Your task to perform on an android device: Search for a new lawnmower on Lowes.com Image 0: 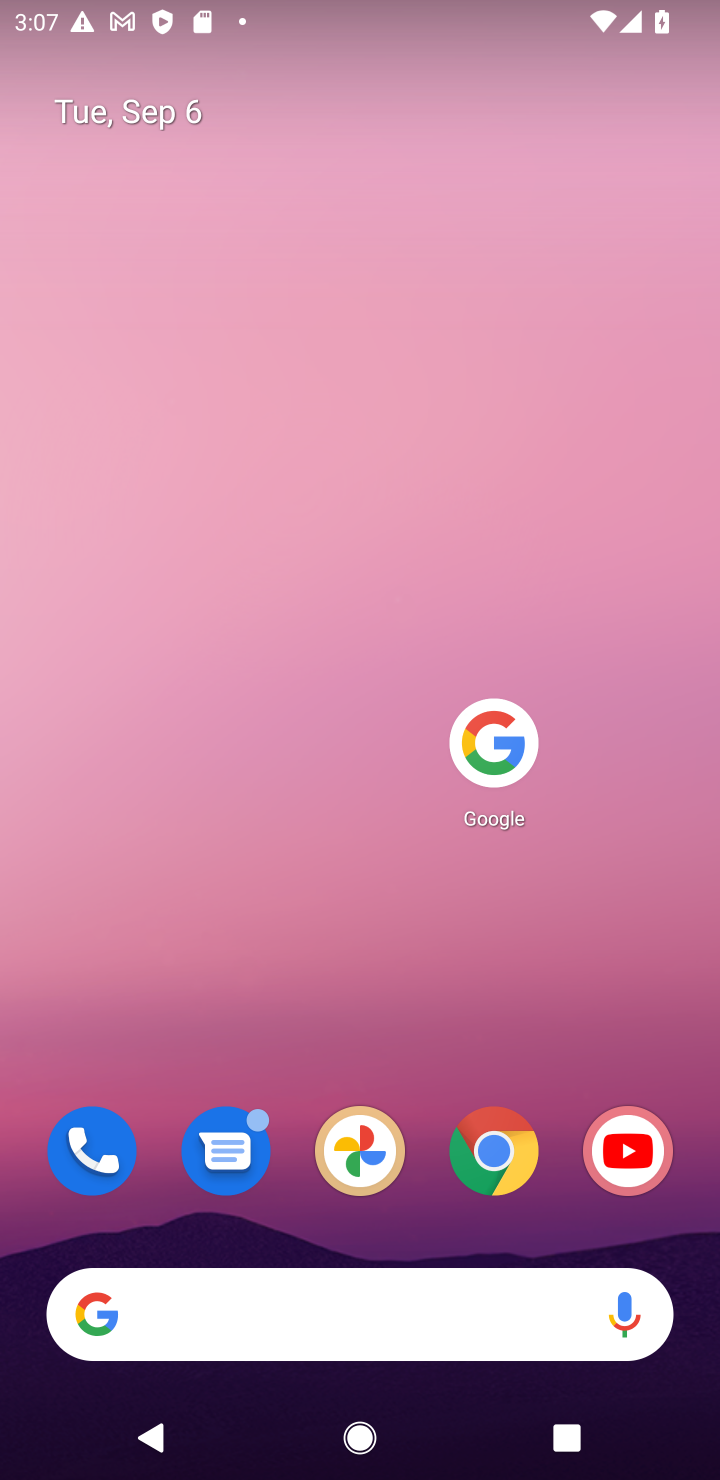
Step 0: click (466, 727)
Your task to perform on an android device: Search for a new lawnmower on Lowes.com Image 1: 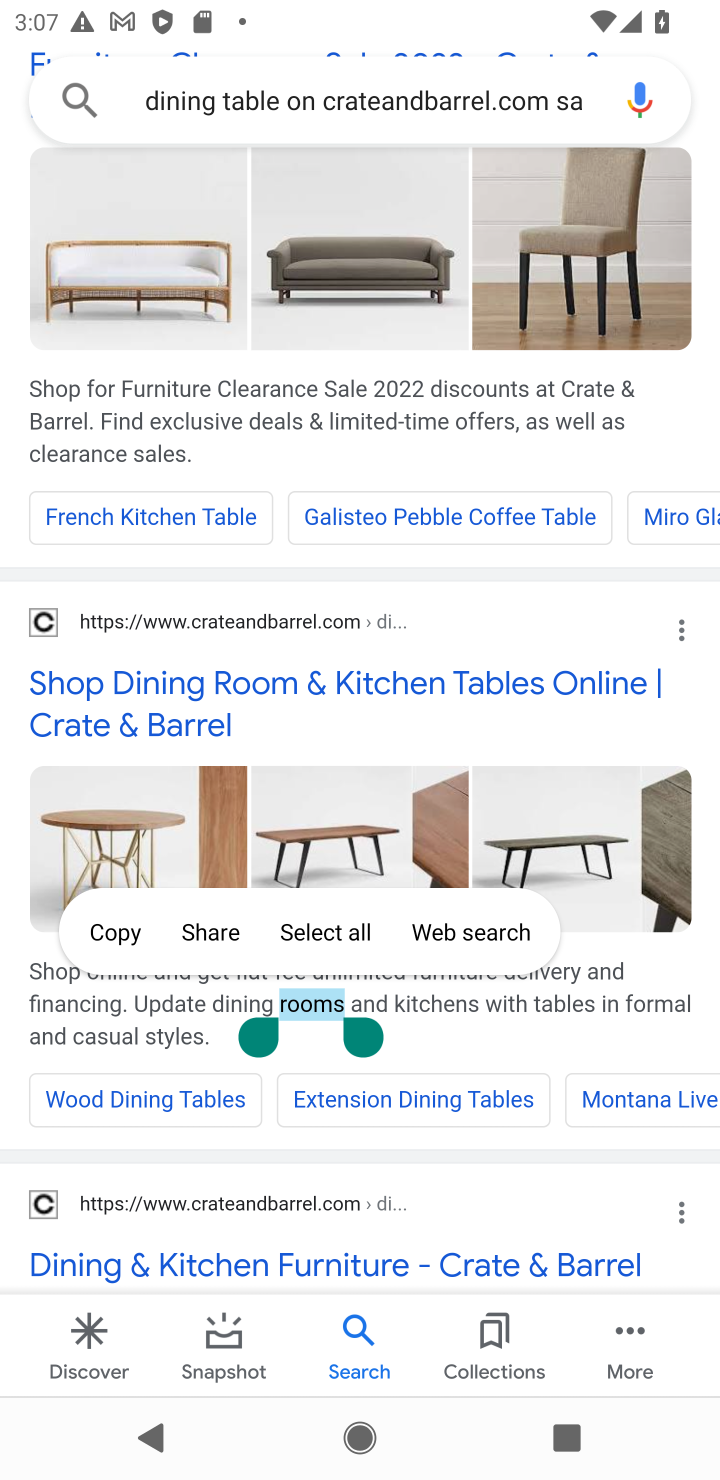
Step 1: drag from (236, 973) to (257, 1205)
Your task to perform on an android device: Search for a new lawnmower on Lowes.com Image 2: 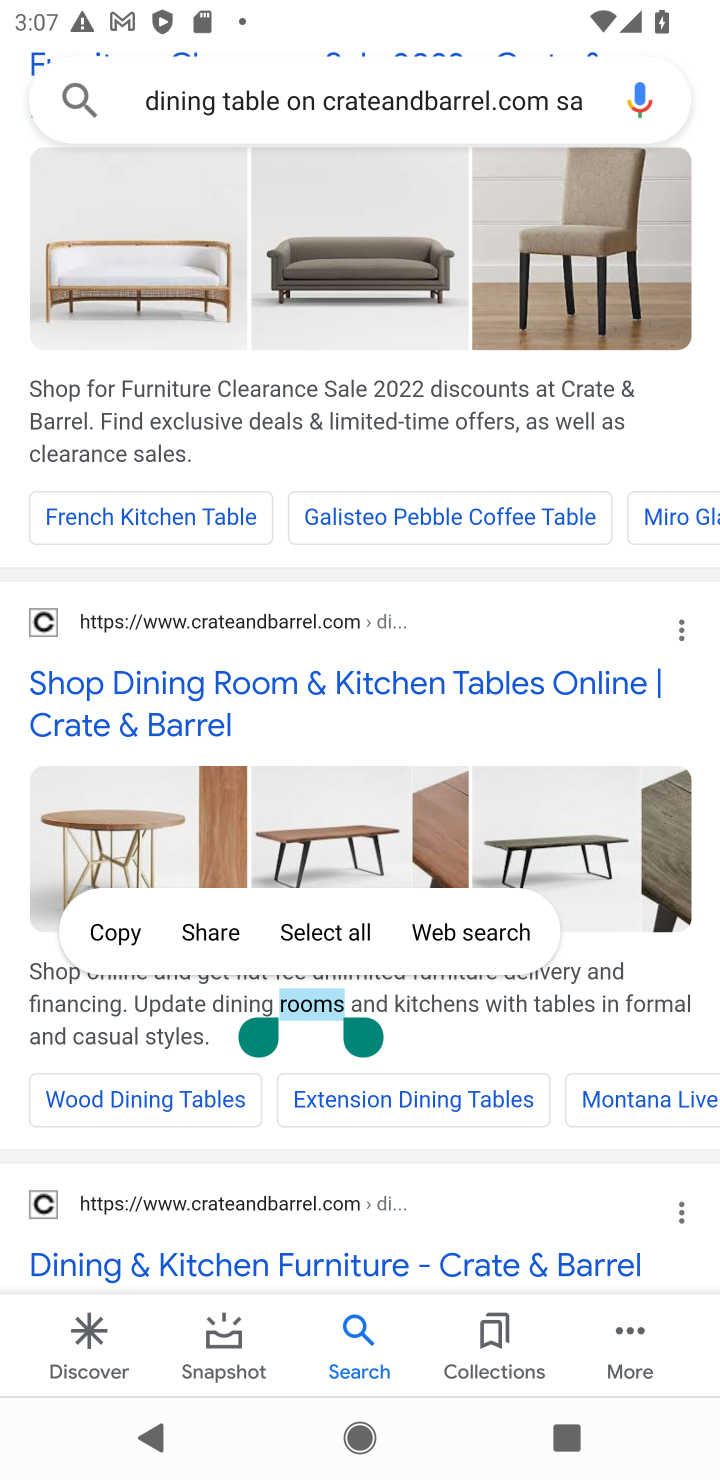
Step 2: click (373, 97)
Your task to perform on an android device: Search for a new lawnmower on Lowes.com Image 3: 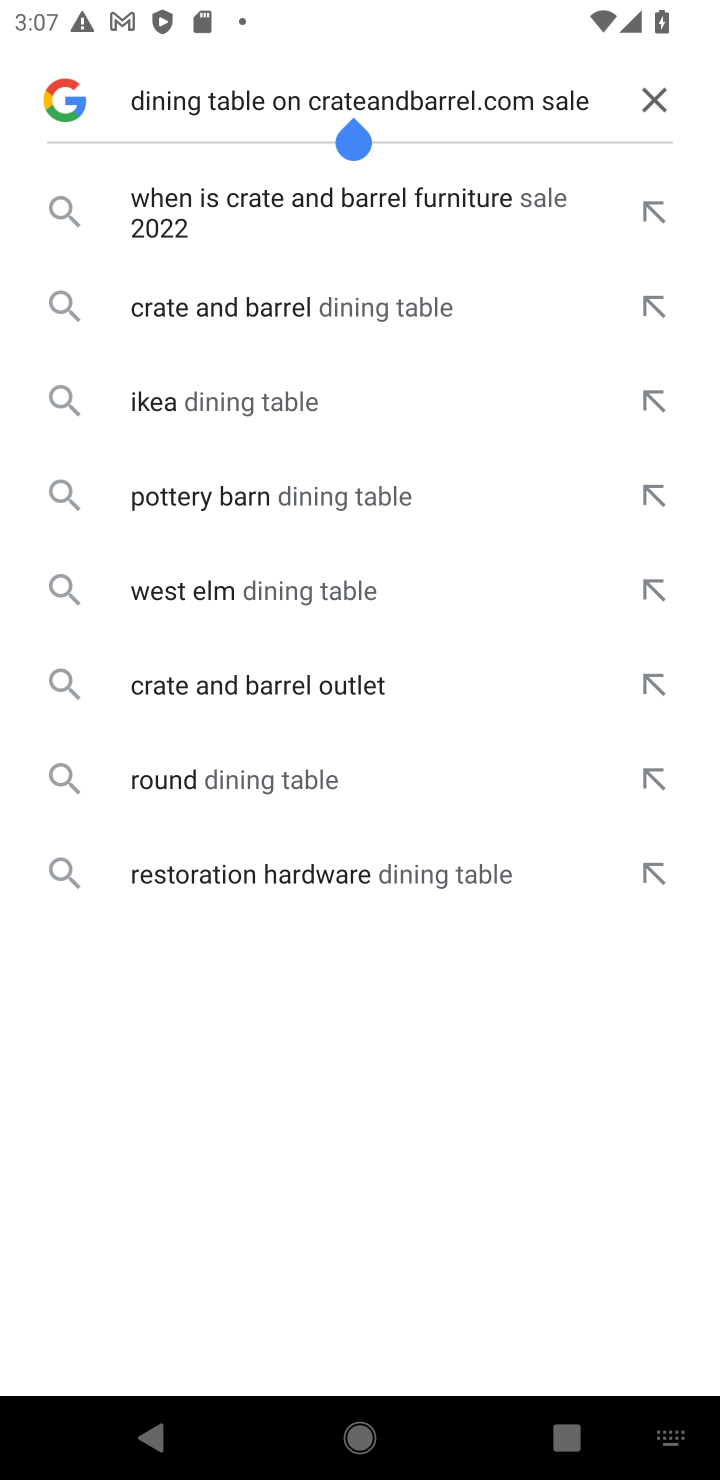
Step 3: click (637, 73)
Your task to perform on an android device: Search for a new lawnmower on Lowes.com Image 4: 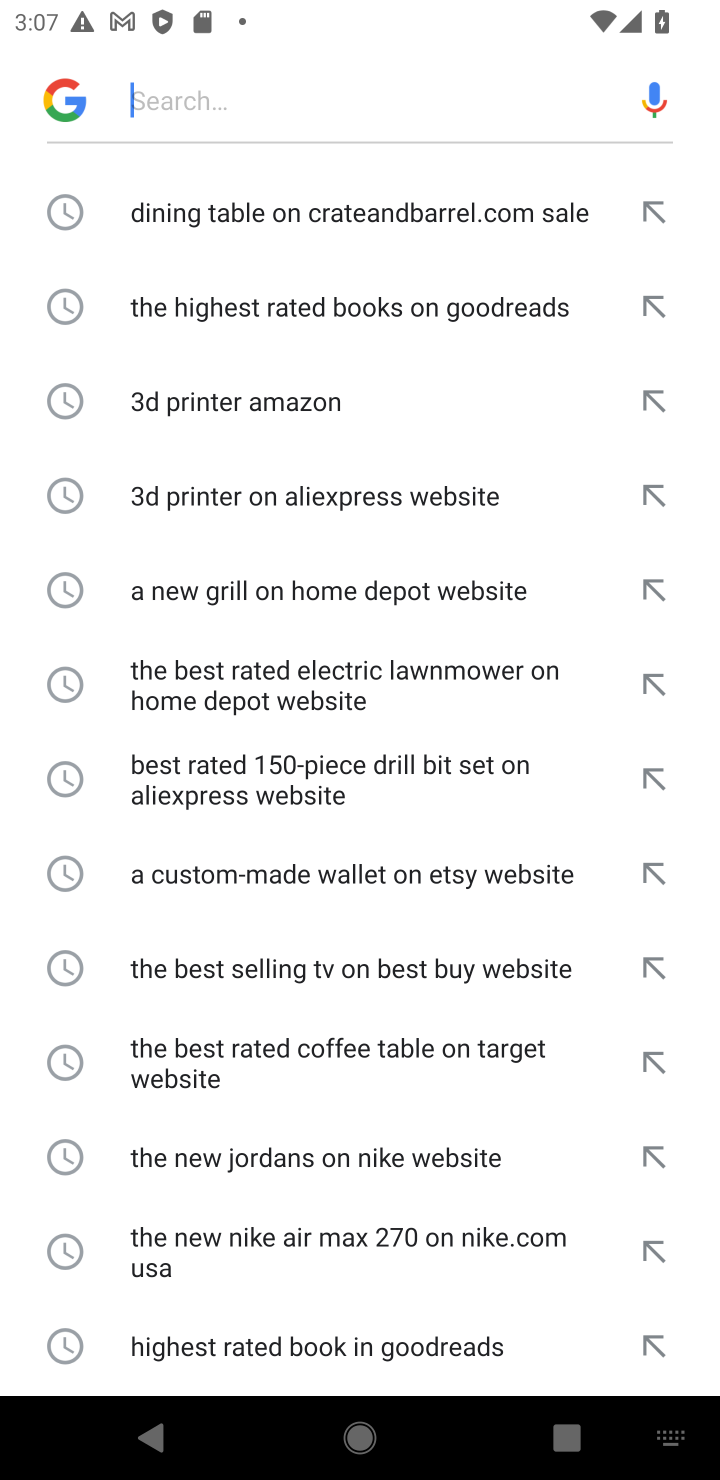
Step 4: click (182, 71)
Your task to perform on an android device: Search for a new lawnmower on Lowes.com Image 5: 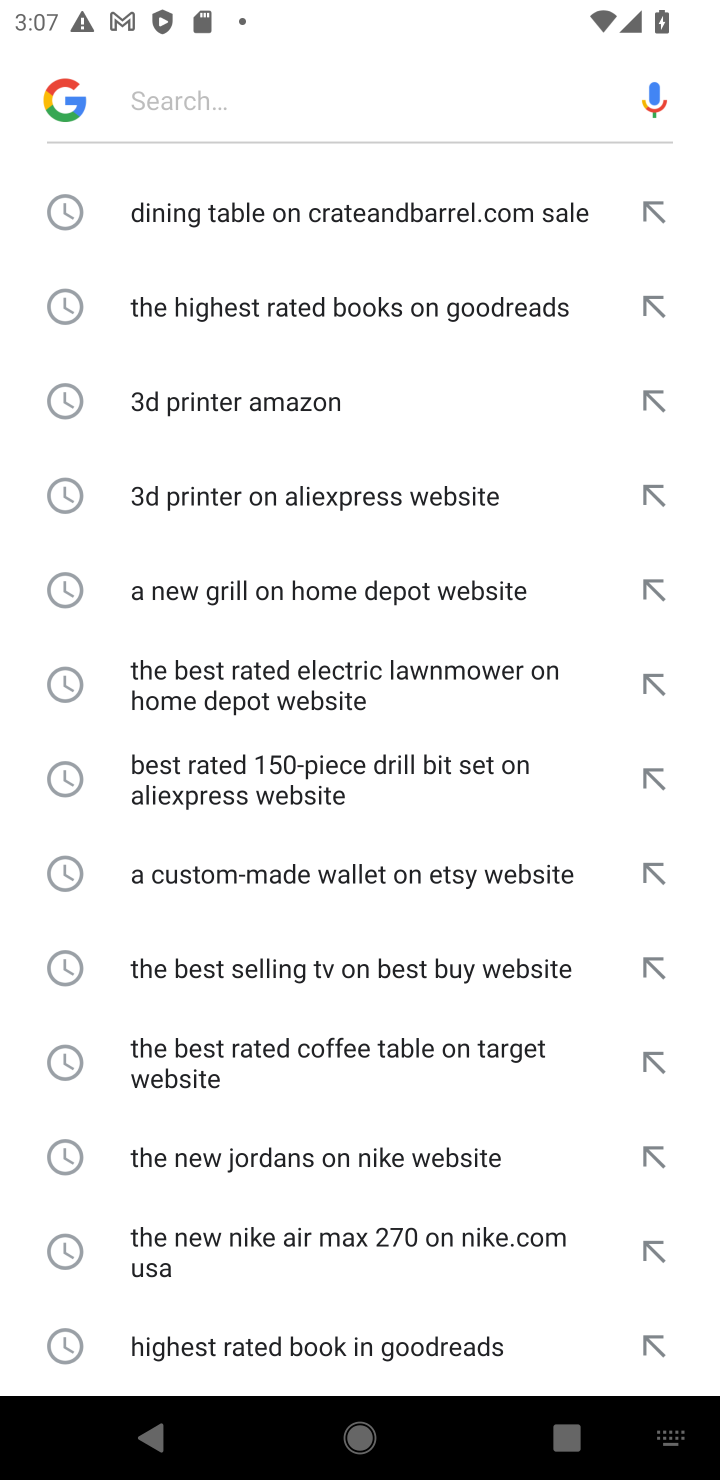
Step 5: type "new lawnmower on Lowes.com "
Your task to perform on an android device: Search for a new lawnmower on Lowes.com Image 6: 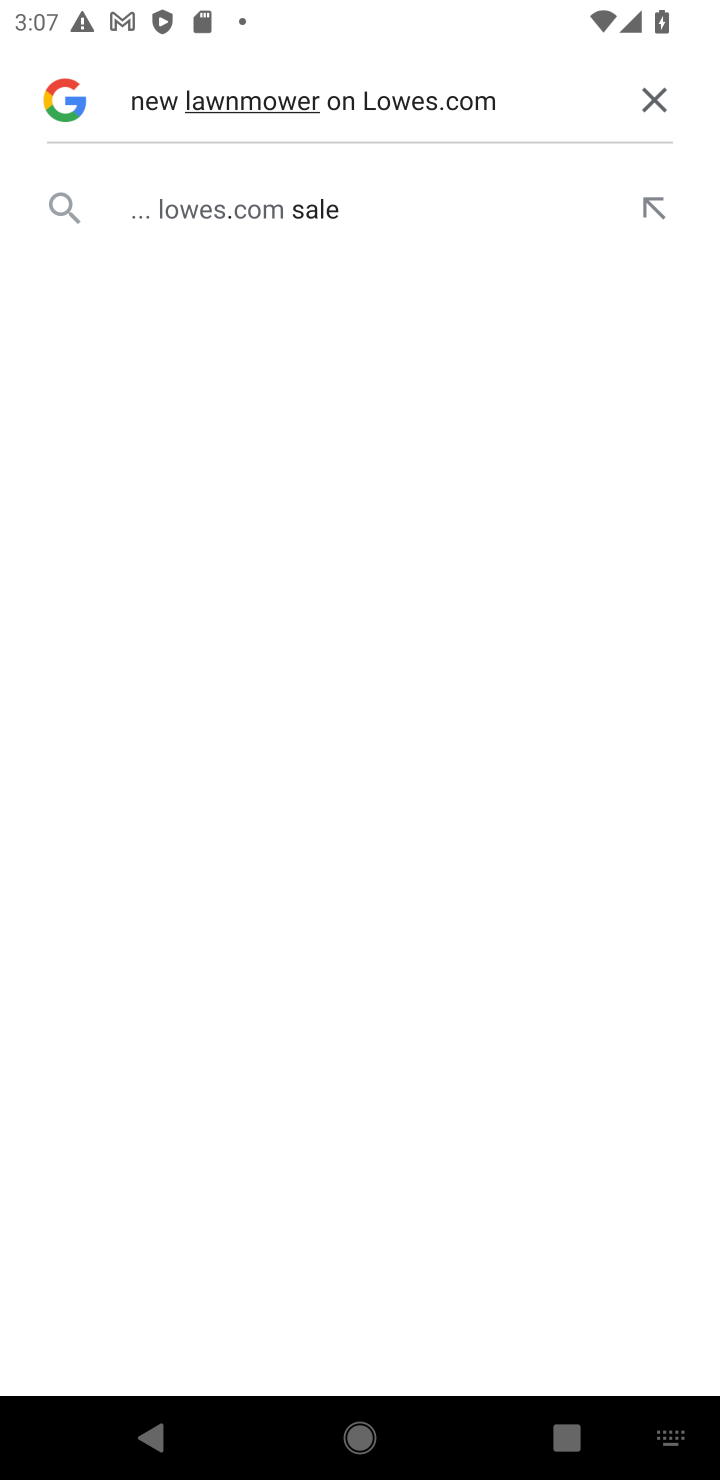
Step 6: click (248, 208)
Your task to perform on an android device: Search for a new lawnmower on Lowes.com Image 7: 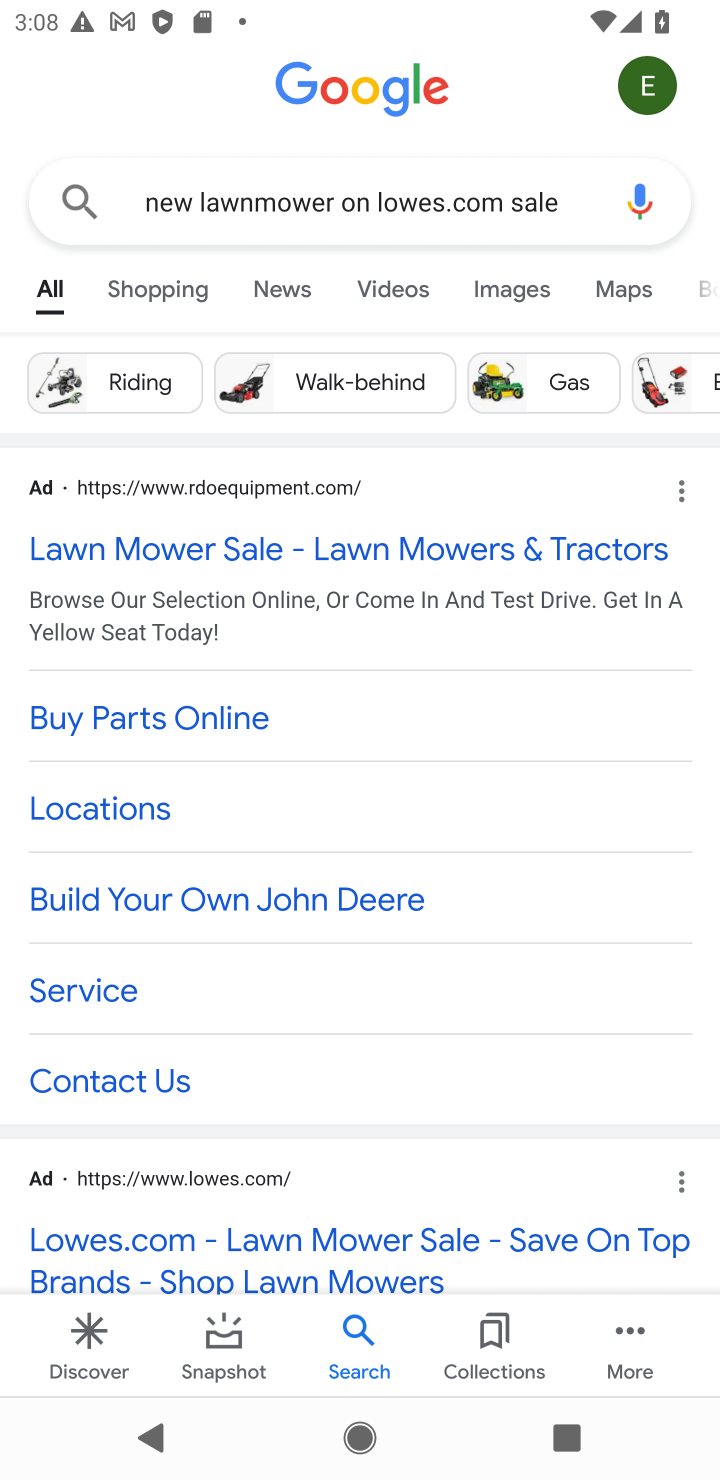
Step 7: task complete